Your task to perform on an android device: Go to settings Image 0: 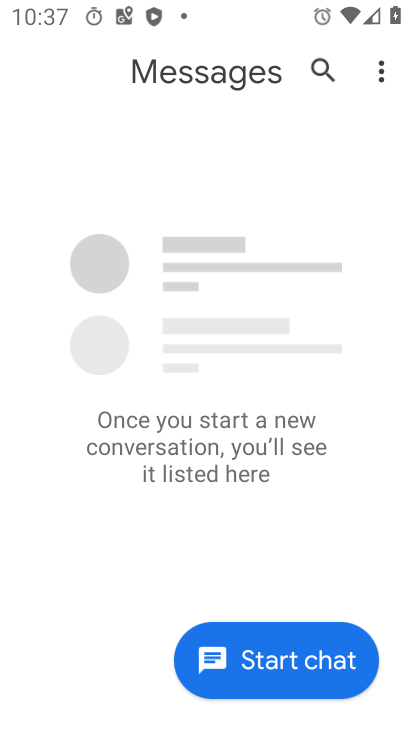
Step 0: press home button
Your task to perform on an android device: Go to settings Image 1: 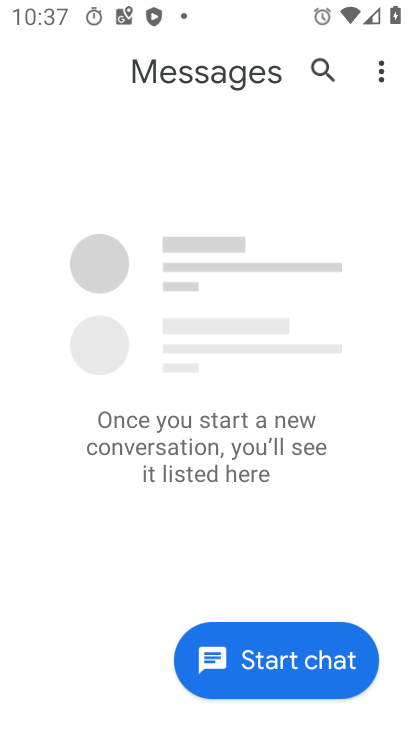
Step 1: press home button
Your task to perform on an android device: Go to settings Image 2: 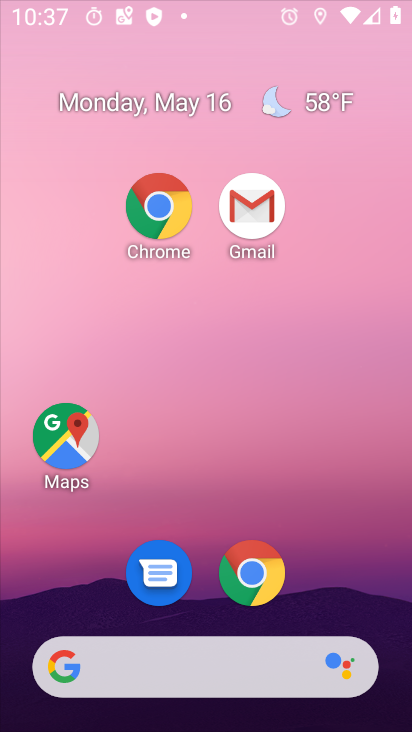
Step 2: press home button
Your task to perform on an android device: Go to settings Image 3: 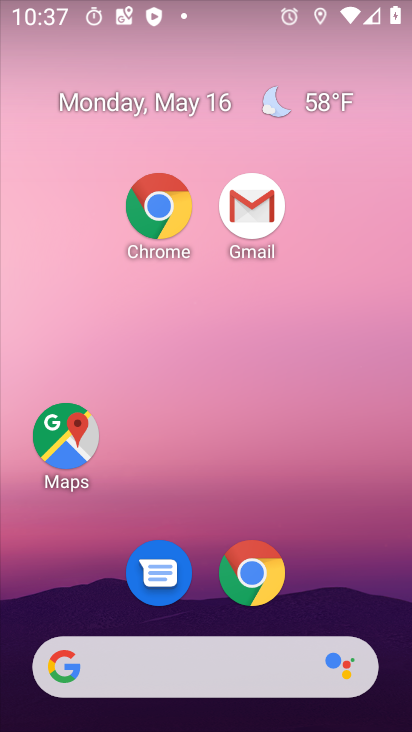
Step 3: drag from (338, 647) to (139, 0)
Your task to perform on an android device: Go to settings Image 4: 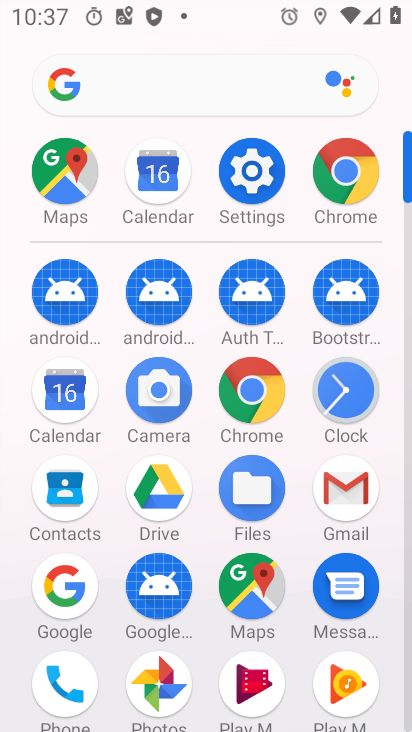
Step 4: click (254, 169)
Your task to perform on an android device: Go to settings Image 5: 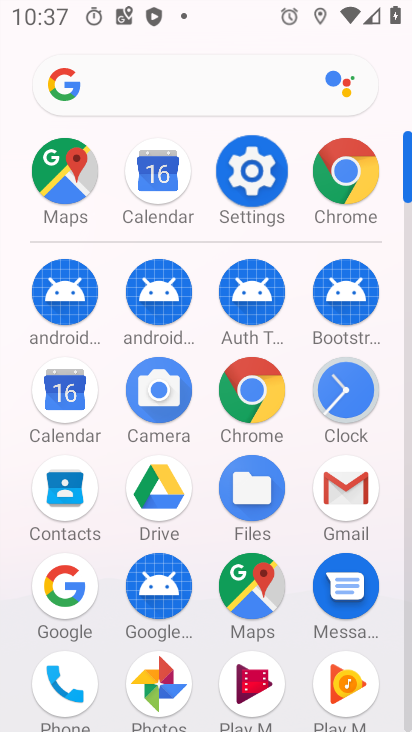
Step 5: click (252, 169)
Your task to perform on an android device: Go to settings Image 6: 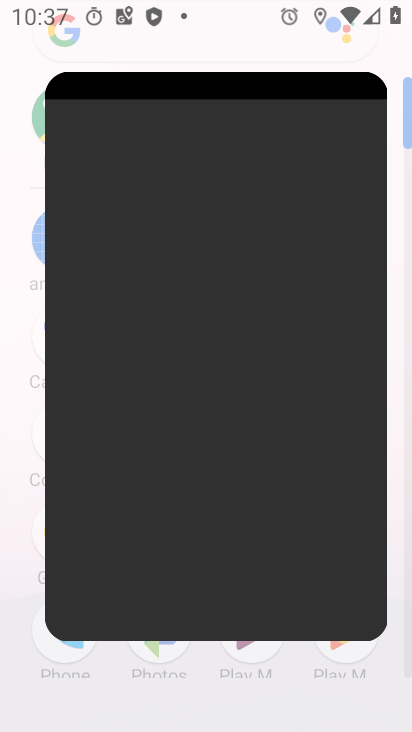
Step 6: click (252, 169)
Your task to perform on an android device: Go to settings Image 7: 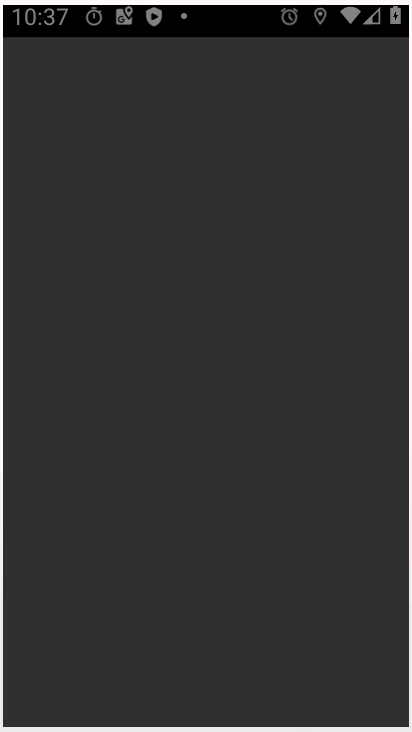
Step 7: click (250, 169)
Your task to perform on an android device: Go to settings Image 8: 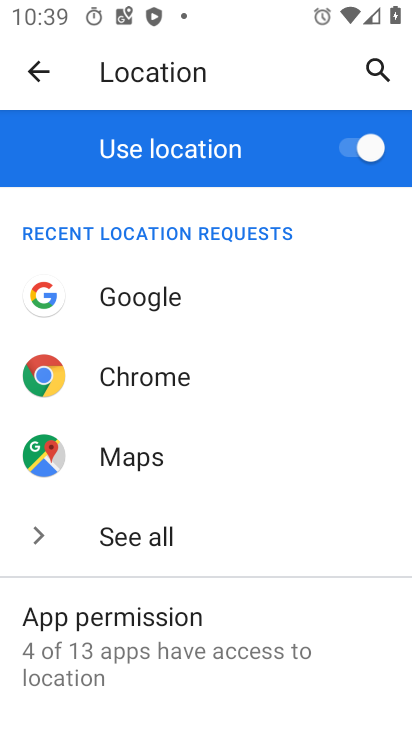
Step 8: click (35, 65)
Your task to perform on an android device: Go to settings Image 9: 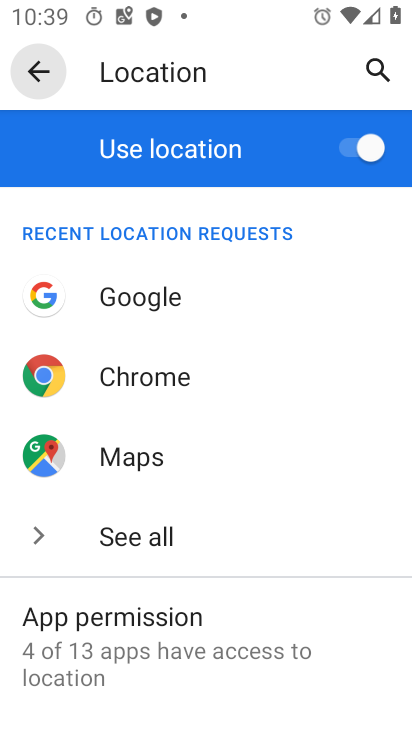
Step 9: click (35, 65)
Your task to perform on an android device: Go to settings Image 10: 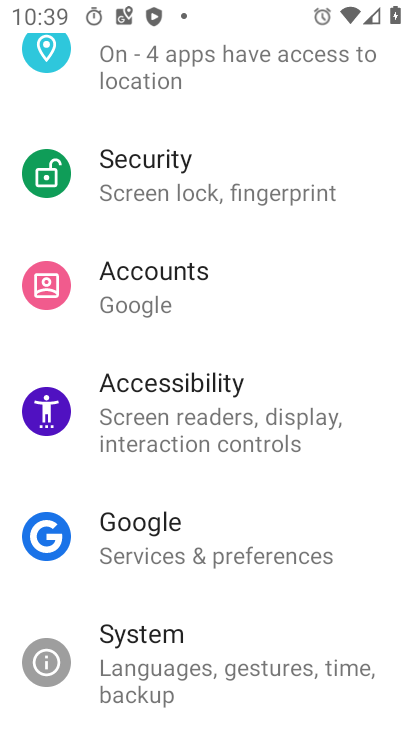
Step 10: click (35, 65)
Your task to perform on an android device: Go to settings Image 11: 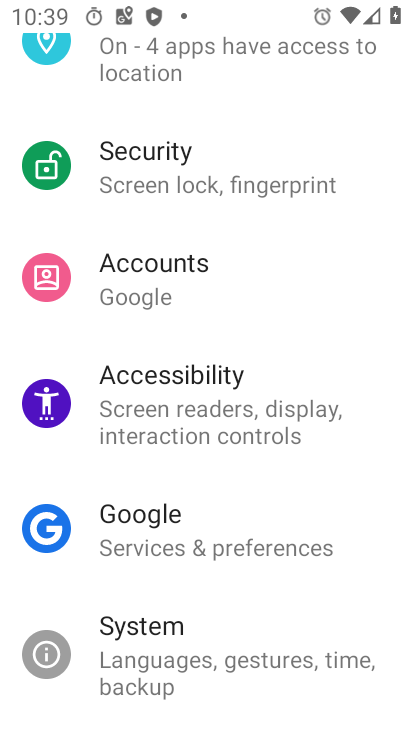
Step 11: click (35, 65)
Your task to perform on an android device: Go to settings Image 12: 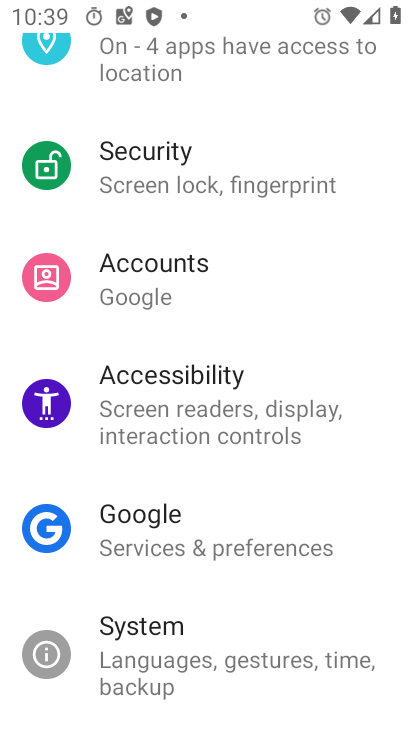
Step 12: click (35, 65)
Your task to perform on an android device: Go to settings Image 13: 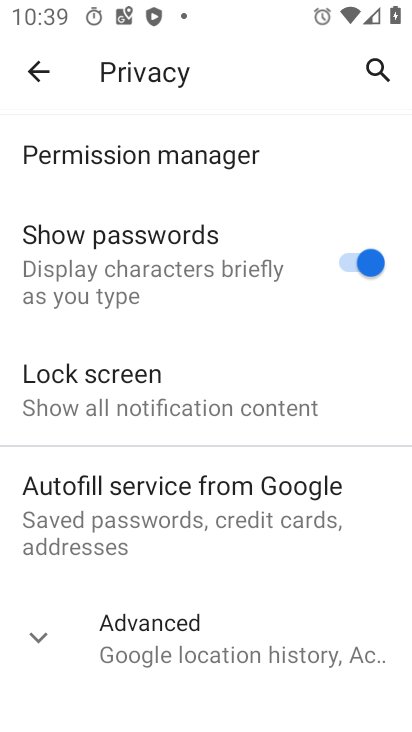
Step 13: click (35, 65)
Your task to perform on an android device: Go to settings Image 14: 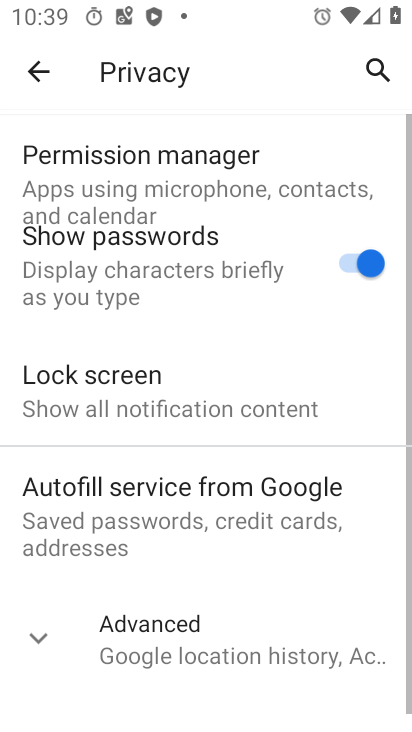
Step 14: click (35, 65)
Your task to perform on an android device: Go to settings Image 15: 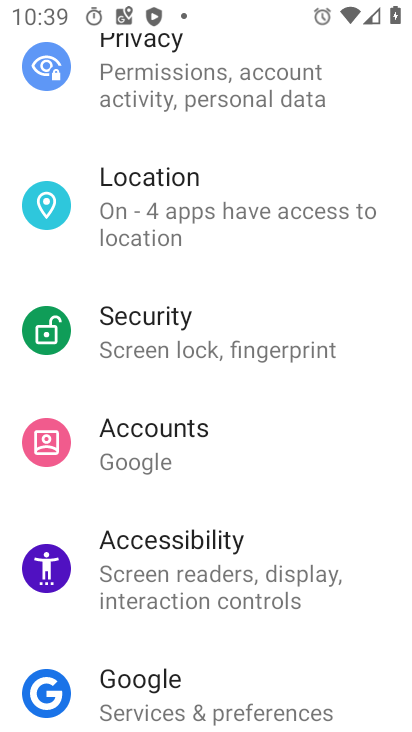
Step 15: task complete